Your task to perform on an android device: Open Google Chrome and open the bookmarks view Image 0: 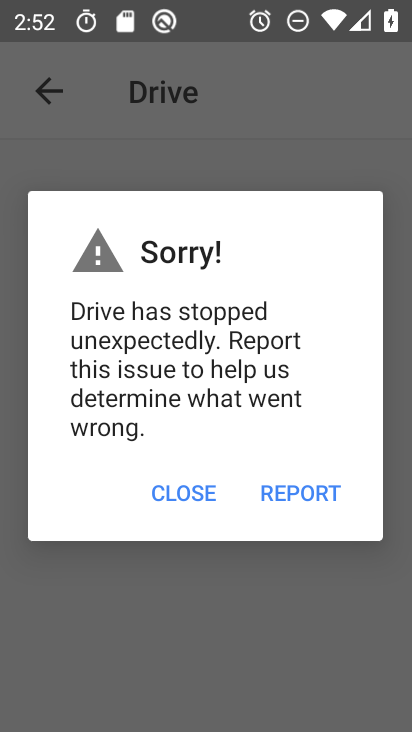
Step 0: press home button
Your task to perform on an android device: Open Google Chrome and open the bookmarks view Image 1: 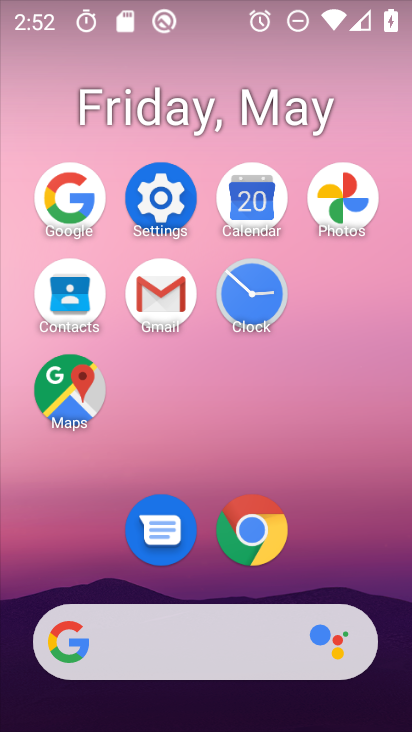
Step 1: click (266, 529)
Your task to perform on an android device: Open Google Chrome and open the bookmarks view Image 2: 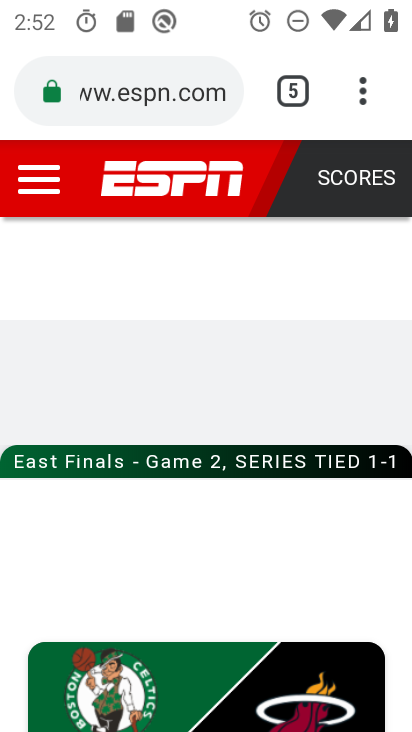
Step 2: click (260, 543)
Your task to perform on an android device: Open Google Chrome and open the bookmarks view Image 3: 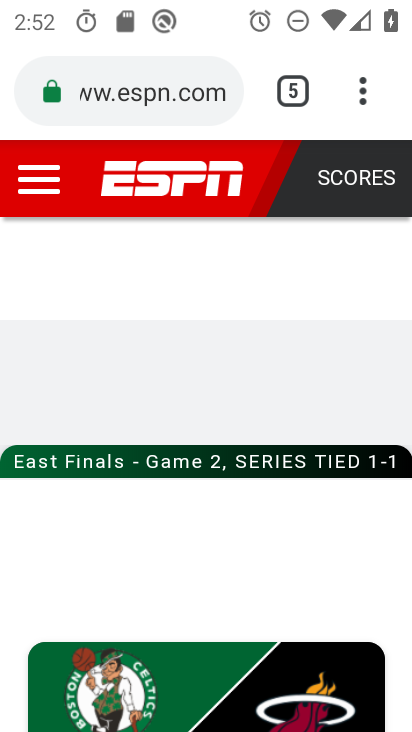
Step 3: drag from (257, 540) to (272, 166)
Your task to perform on an android device: Open Google Chrome and open the bookmarks view Image 4: 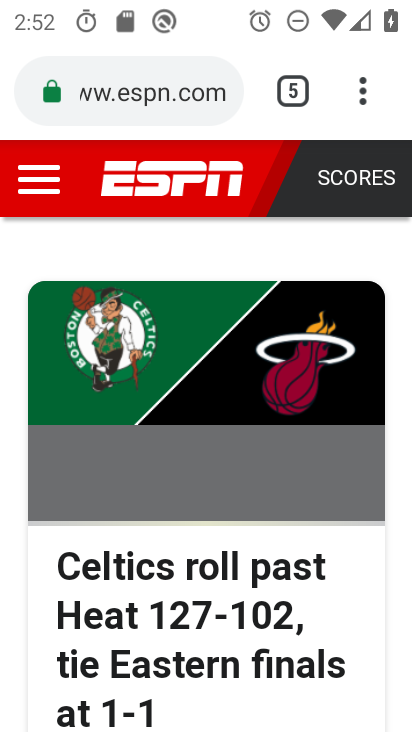
Step 4: click (367, 109)
Your task to perform on an android device: Open Google Chrome and open the bookmarks view Image 5: 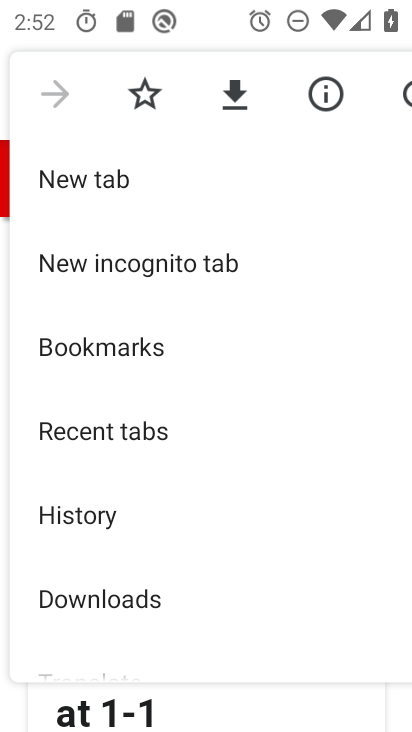
Step 5: click (172, 334)
Your task to perform on an android device: Open Google Chrome and open the bookmarks view Image 6: 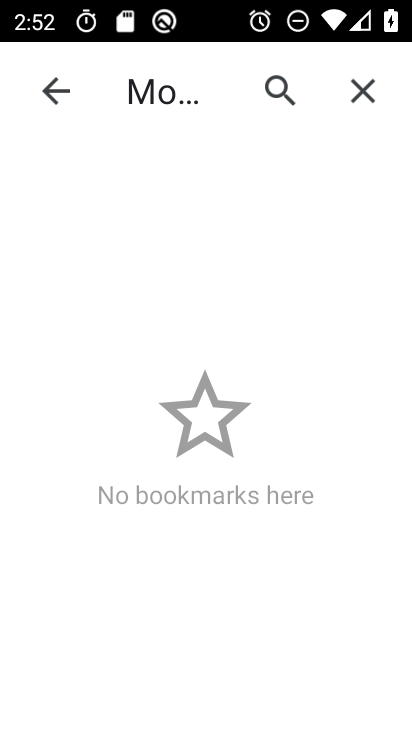
Step 6: task complete